Your task to perform on an android device: turn on improve location accuracy Image 0: 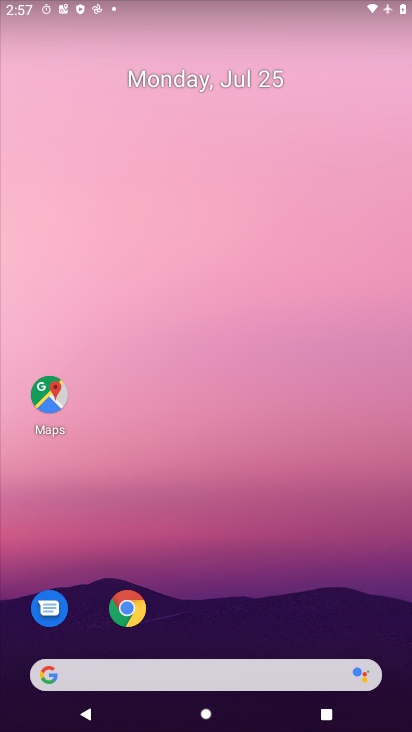
Step 0: drag from (249, 697) to (276, 110)
Your task to perform on an android device: turn on improve location accuracy Image 1: 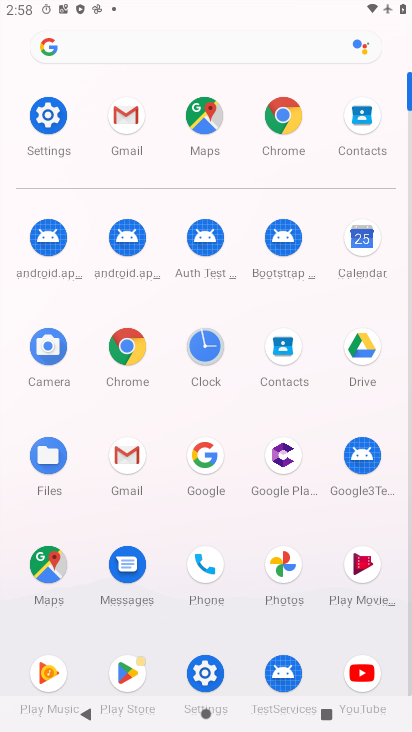
Step 1: click (36, 132)
Your task to perform on an android device: turn on improve location accuracy Image 2: 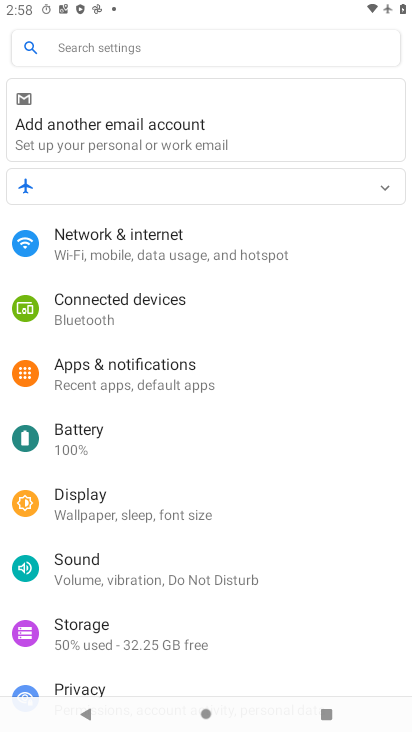
Step 2: drag from (167, 611) to (179, 395)
Your task to perform on an android device: turn on improve location accuracy Image 3: 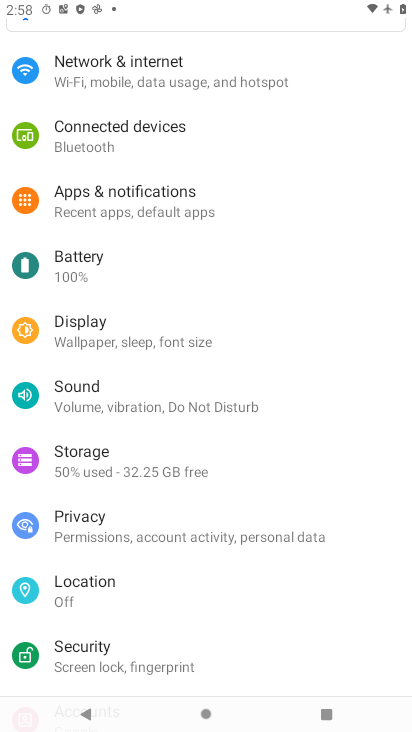
Step 3: click (117, 596)
Your task to perform on an android device: turn on improve location accuracy Image 4: 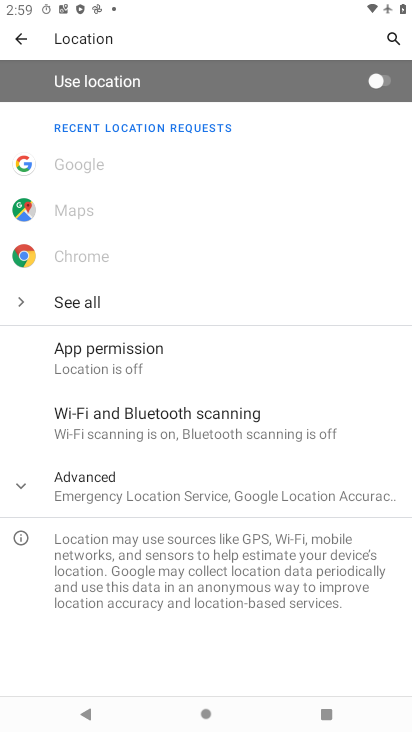
Step 4: click (75, 495)
Your task to perform on an android device: turn on improve location accuracy Image 5: 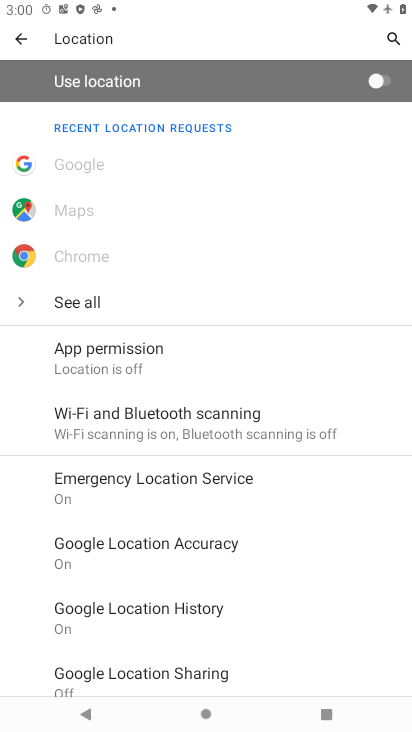
Step 5: click (175, 547)
Your task to perform on an android device: turn on improve location accuracy Image 6: 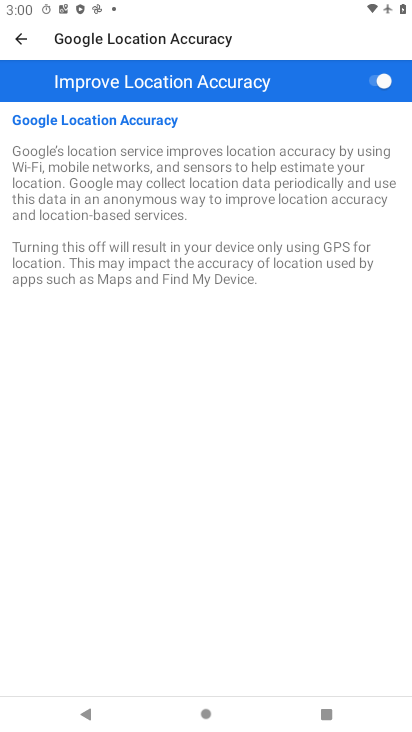
Step 6: press home button
Your task to perform on an android device: turn on improve location accuracy Image 7: 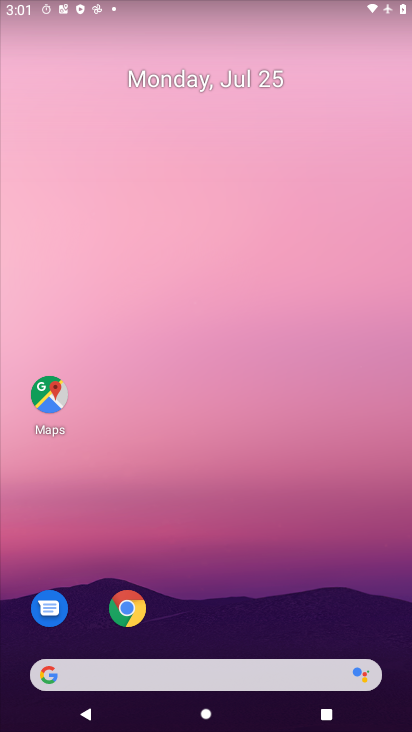
Step 7: drag from (204, 620) to (186, 270)
Your task to perform on an android device: turn on improve location accuracy Image 8: 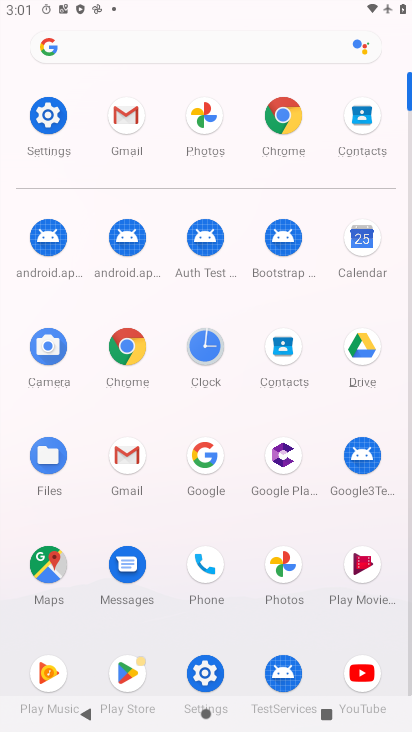
Step 8: click (58, 103)
Your task to perform on an android device: turn on improve location accuracy Image 9: 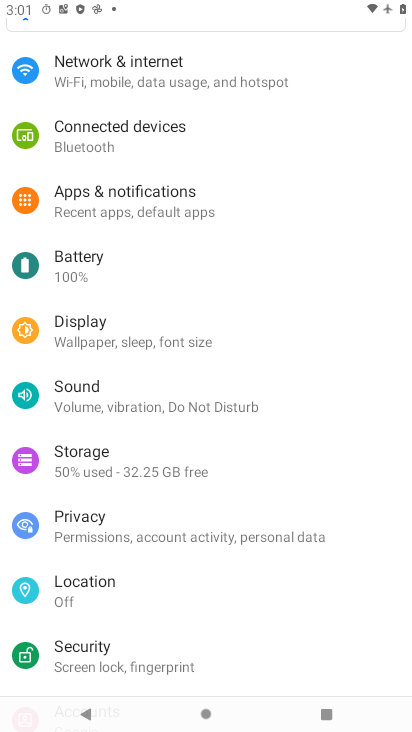
Step 9: click (137, 598)
Your task to perform on an android device: turn on improve location accuracy Image 10: 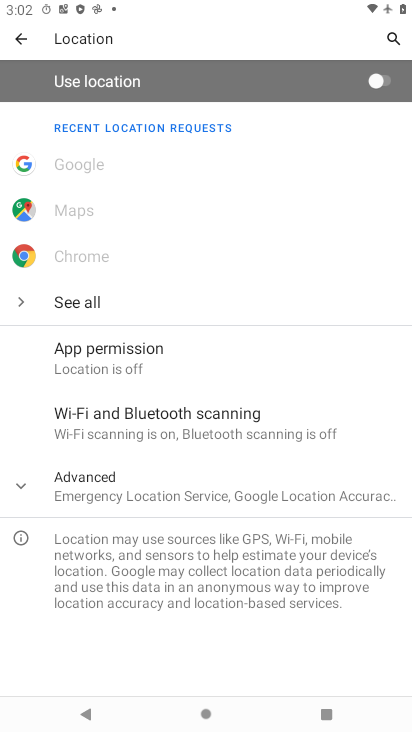
Step 10: click (197, 491)
Your task to perform on an android device: turn on improve location accuracy Image 11: 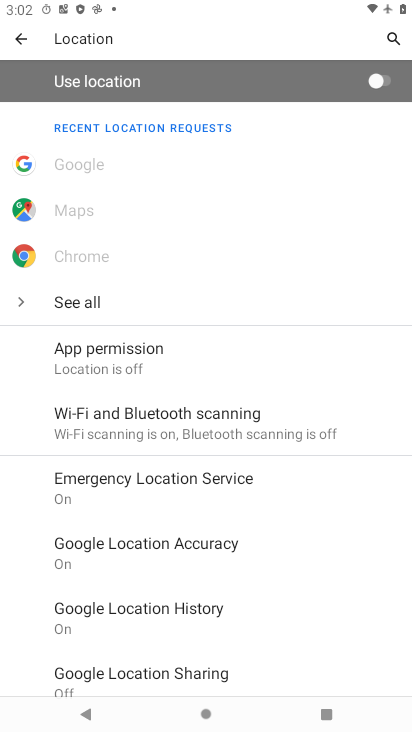
Step 11: click (227, 538)
Your task to perform on an android device: turn on improve location accuracy Image 12: 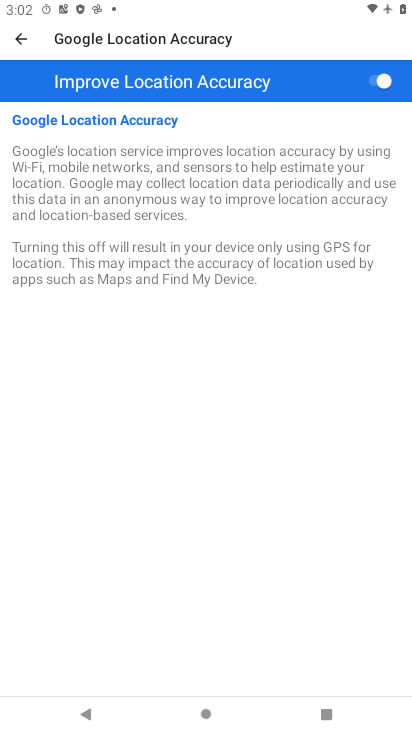
Step 12: task complete